Your task to perform on an android device: change alarm snooze length Image 0: 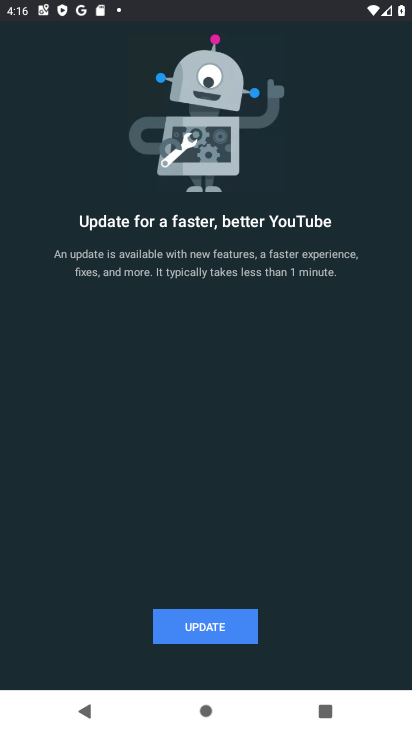
Step 0: press home button
Your task to perform on an android device: change alarm snooze length Image 1: 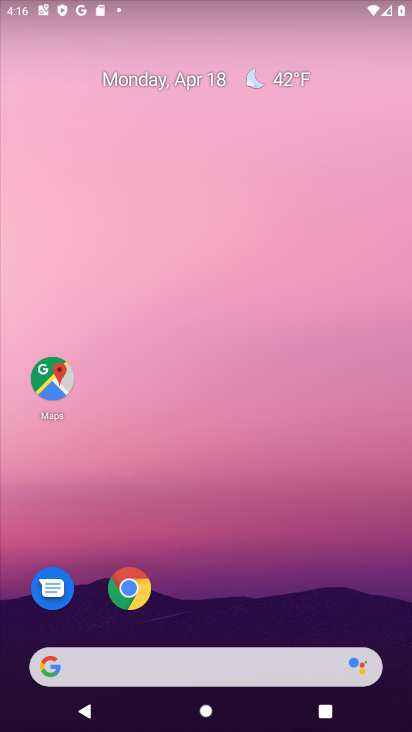
Step 1: drag from (334, 561) to (348, 134)
Your task to perform on an android device: change alarm snooze length Image 2: 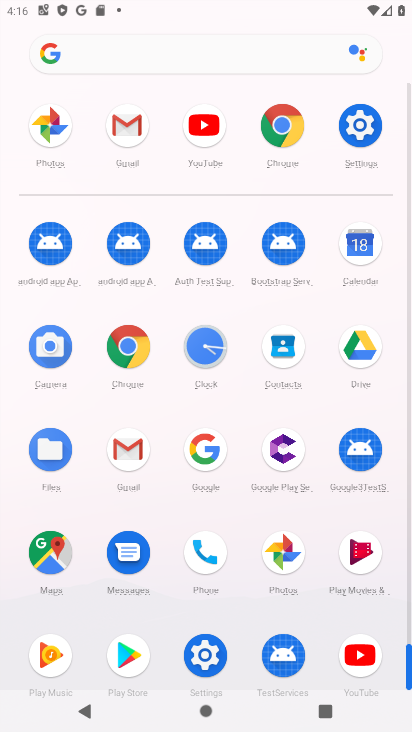
Step 2: click (197, 349)
Your task to perform on an android device: change alarm snooze length Image 3: 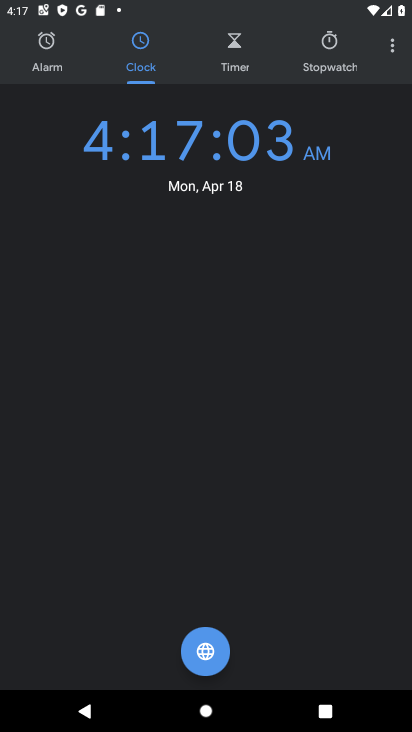
Step 3: click (394, 52)
Your task to perform on an android device: change alarm snooze length Image 4: 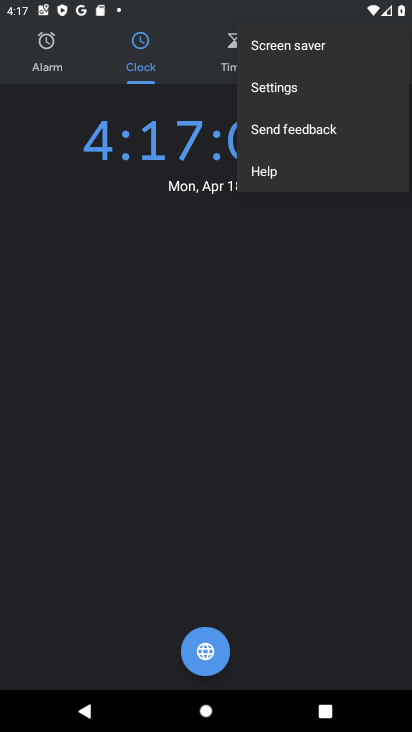
Step 4: click (291, 90)
Your task to perform on an android device: change alarm snooze length Image 5: 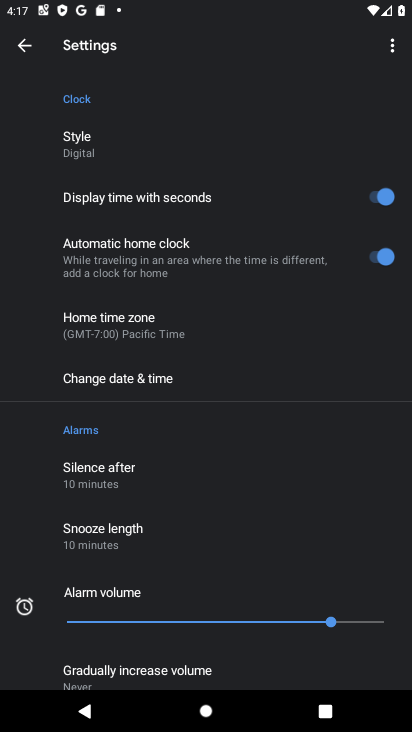
Step 5: click (140, 544)
Your task to perform on an android device: change alarm snooze length Image 6: 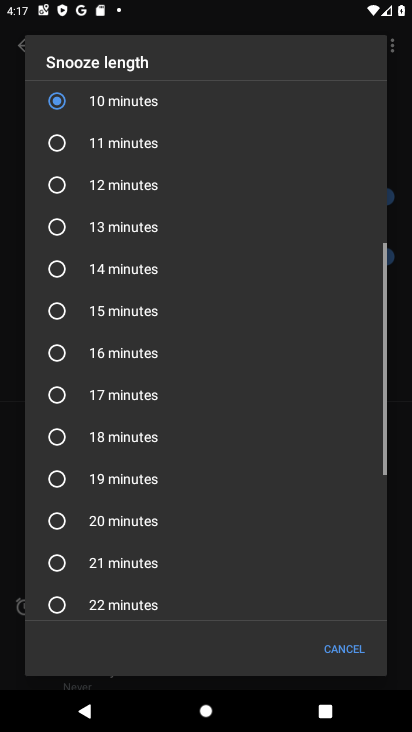
Step 6: click (133, 151)
Your task to perform on an android device: change alarm snooze length Image 7: 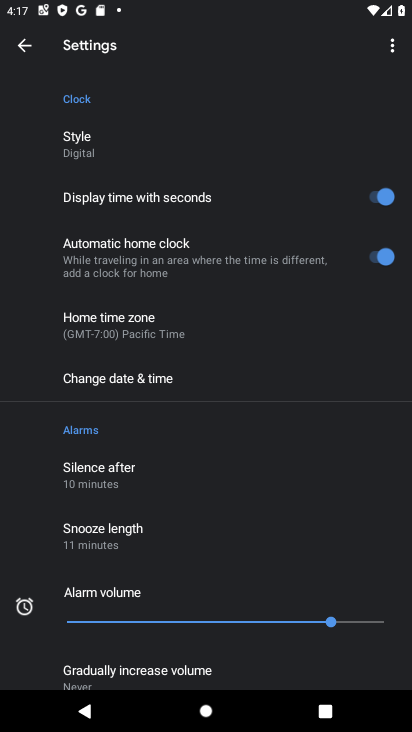
Step 7: task complete